Your task to perform on an android device: Open battery settings Image 0: 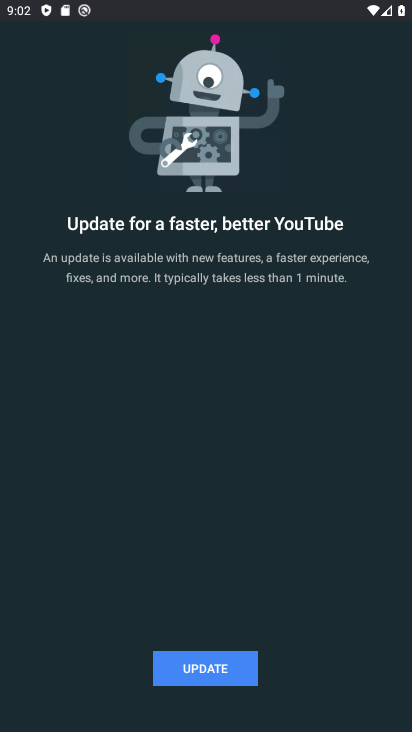
Step 0: press home button
Your task to perform on an android device: Open battery settings Image 1: 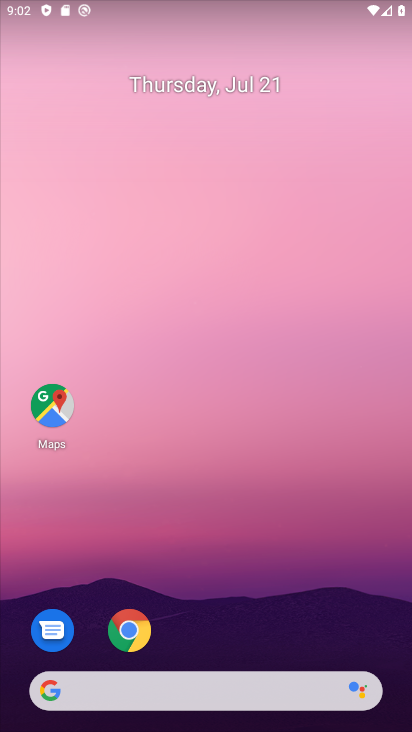
Step 1: drag from (226, 713) to (226, 213)
Your task to perform on an android device: Open battery settings Image 2: 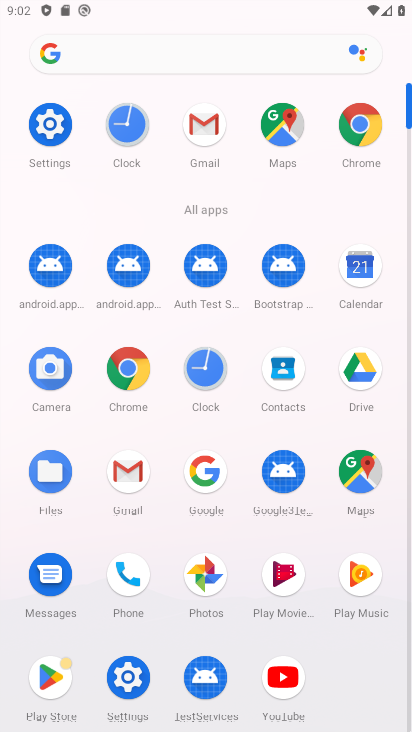
Step 2: click (49, 127)
Your task to perform on an android device: Open battery settings Image 3: 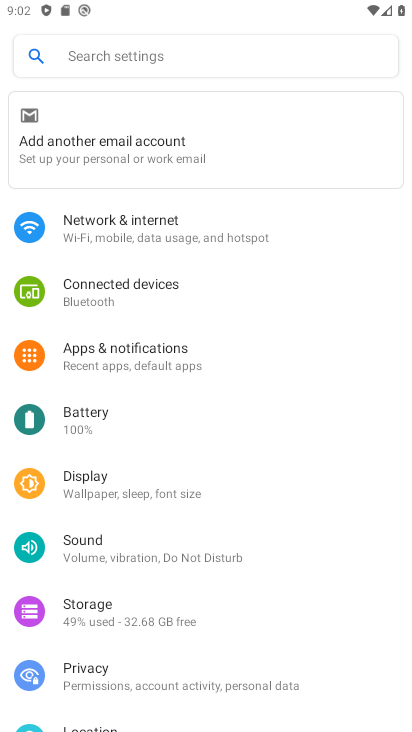
Step 3: click (76, 422)
Your task to perform on an android device: Open battery settings Image 4: 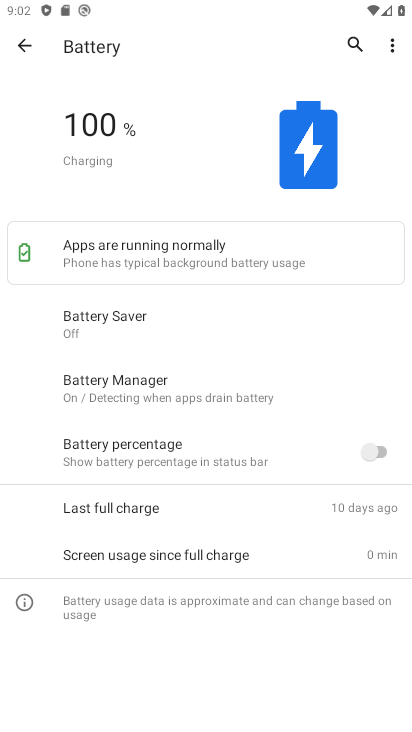
Step 4: task complete